Your task to perform on an android device: add a contact in the contacts app Image 0: 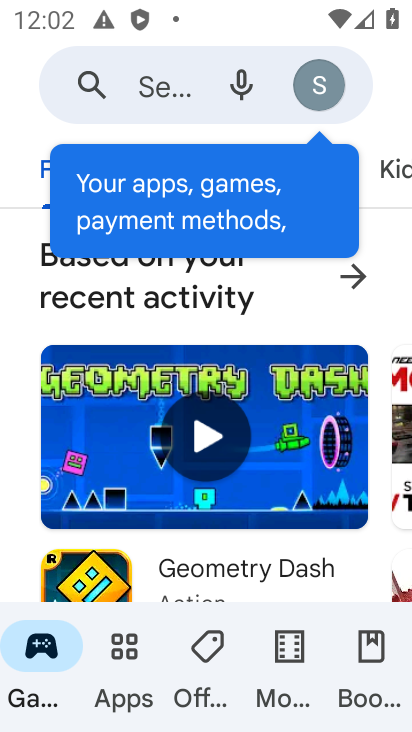
Step 0: press home button
Your task to perform on an android device: add a contact in the contacts app Image 1: 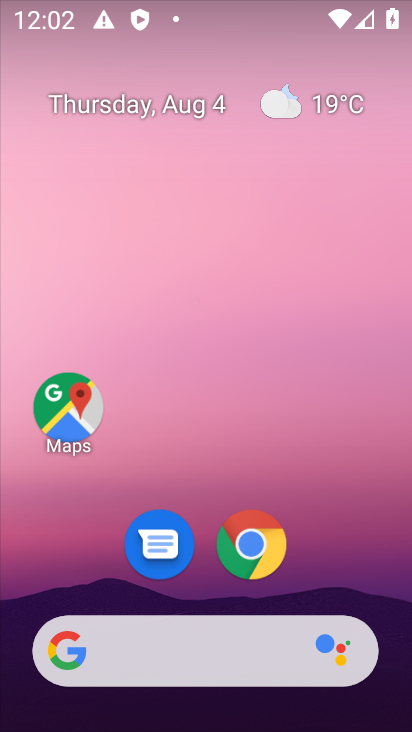
Step 1: drag from (364, 618) to (342, 220)
Your task to perform on an android device: add a contact in the contacts app Image 2: 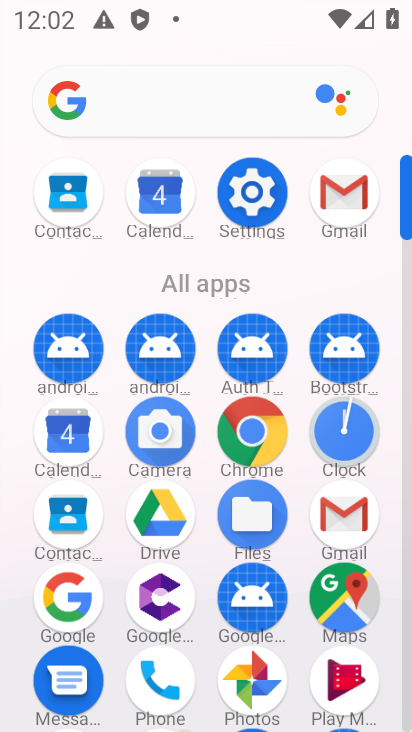
Step 2: click (75, 524)
Your task to perform on an android device: add a contact in the contacts app Image 3: 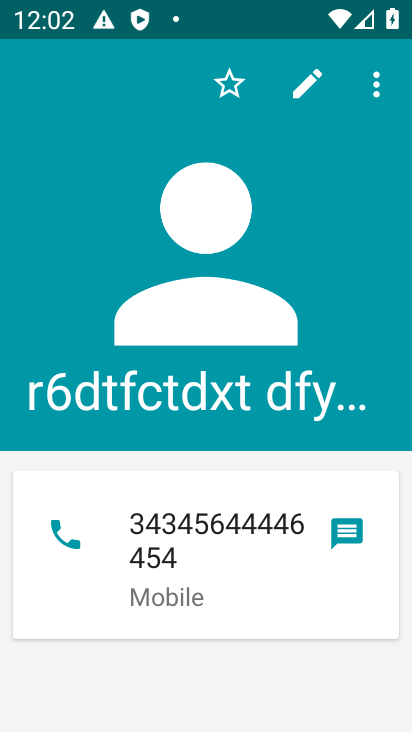
Step 3: press back button
Your task to perform on an android device: add a contact in the contacts app Image 4: 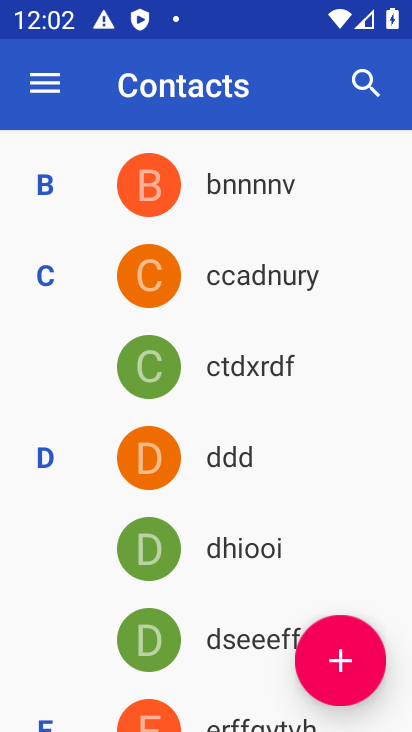
Step 4: click (363, 653)
Your task to perform on an android device: add a contact in the contacts app Image 5: 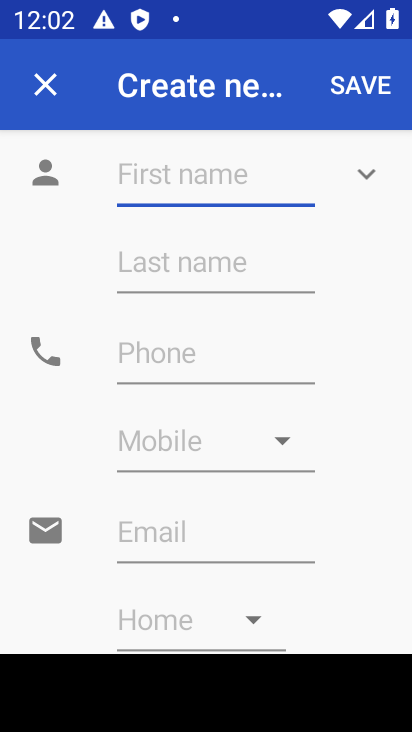
Step 5: type "rrddrdcdgdnjdhd"
Your task to perform on an android device: add a contact in the contacts app Image 6: 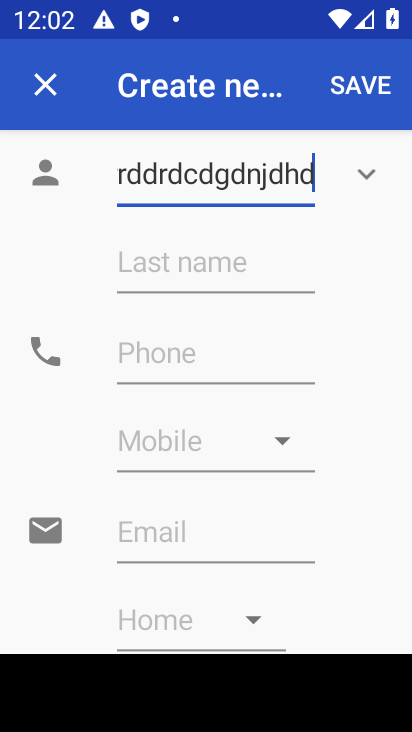
Step 6: click (215, 258)
Your task to perform on an android device: add a contact in the contacts app Image 7: 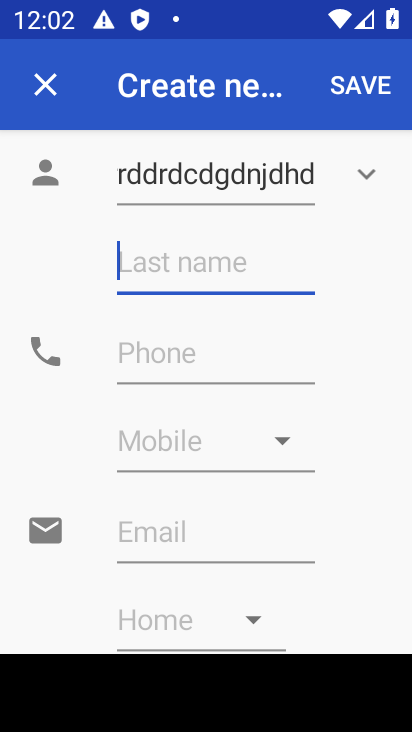
Step 7: type "tdhftftjg"
Your task to perform on an android device: add a contact in the contacts app Image 8: 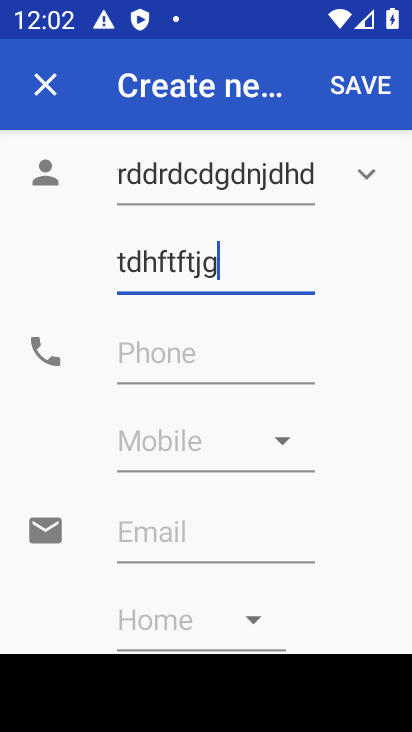
Step 8: click (168, 346)
Your task to perform on an android device: add a contact in the contacts app Image 9: 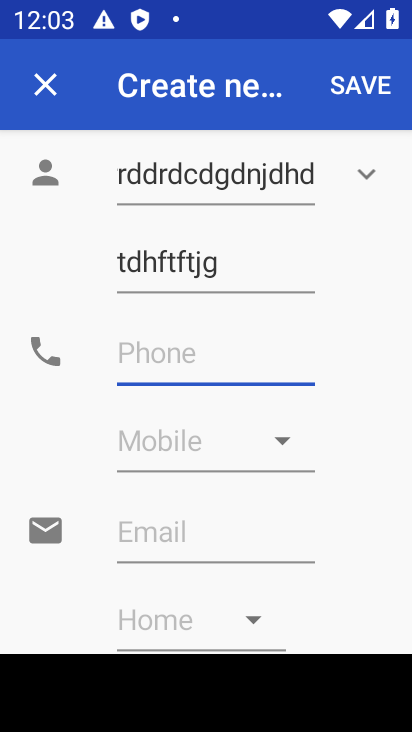
Step 9: type "3434464343434355"
Your task to perform on an android device: add a contact in the contacts app Image 10: 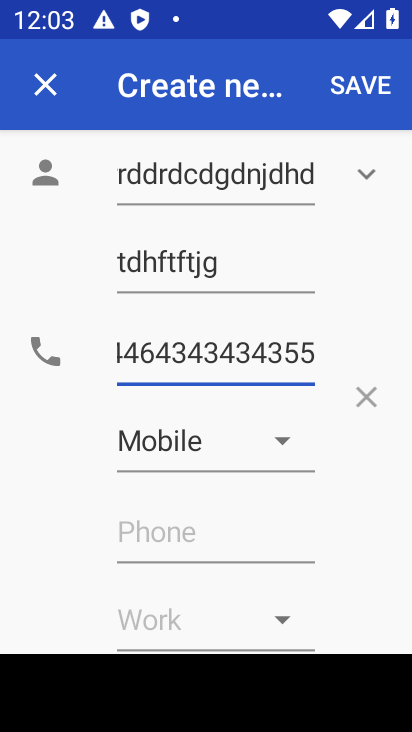
Step 10: click (376, 81)
Your task to perform on an android device: add a contact in the contacts app Image 11: 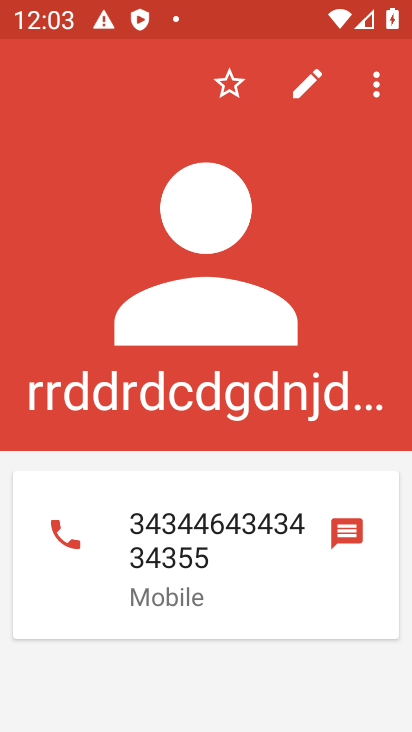
Step 11: task complete